Your task to perform on an android device: Play the last video I watched on Youtube Image 0: 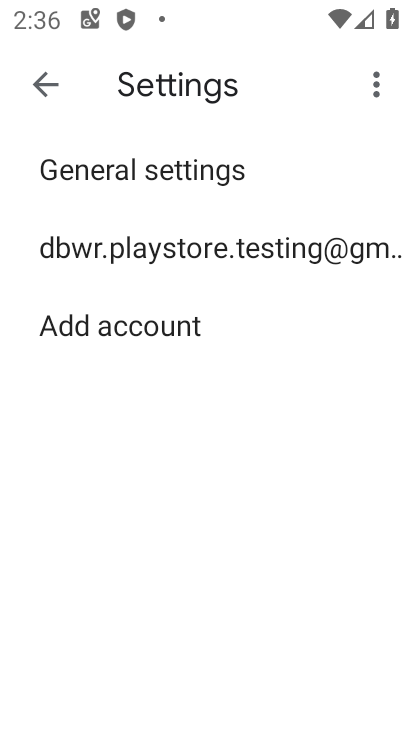
Step 0: press home button
Your task to perform on an android device: Play the last video I watched on Youtube Image 1: 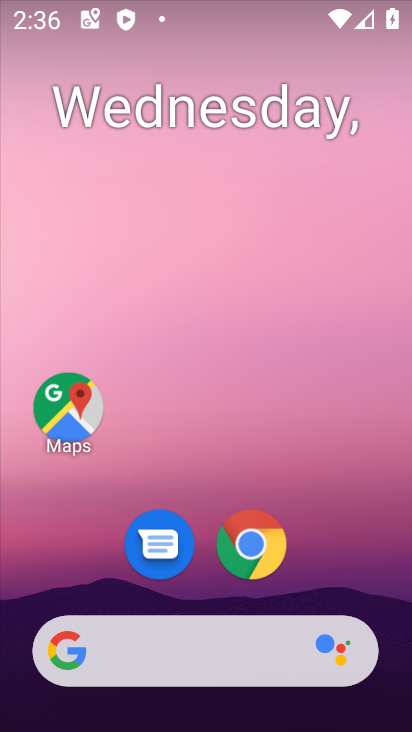
Step 1: drag from (341, 586) to (312, 129)
Your task to perform on an android device: Play the last video I watched on Youtube Image 2: 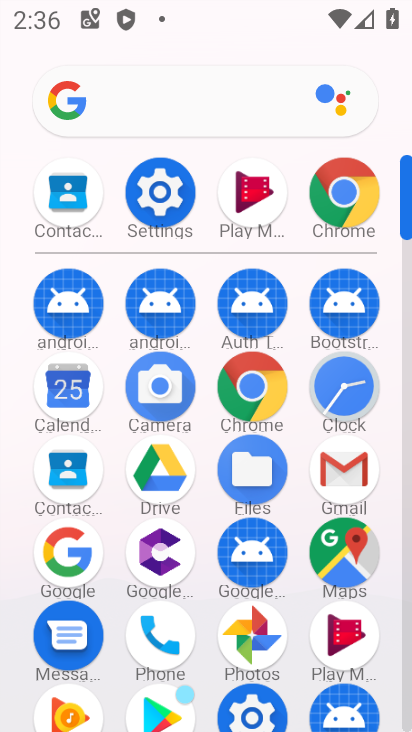
Step 2: drag from (246, 671) to (260, 273)
Your task to perform on an android device: Play the last video I watched on Youtube Image 3: 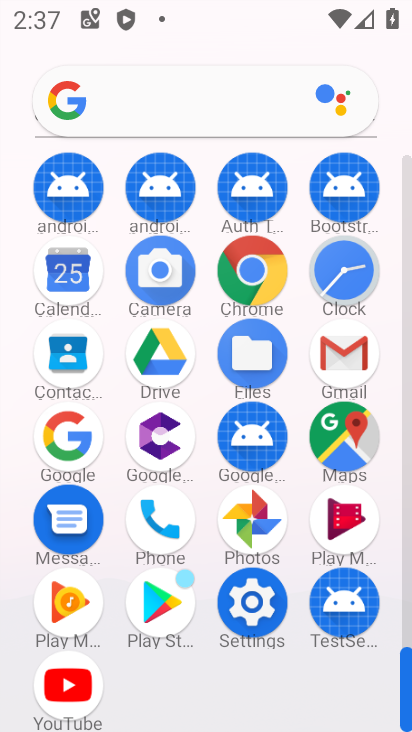
Step 3: click (55, 691)
Your task to perform on an android device: Play the last video I watched on Youtube Image 4: 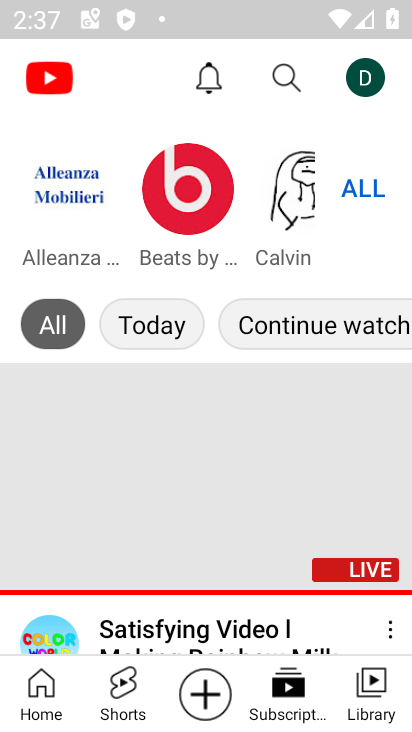
Step 4: click (370, 699)
Your task to perform on an android device: Play the last video I watched on Youtube Image 5: 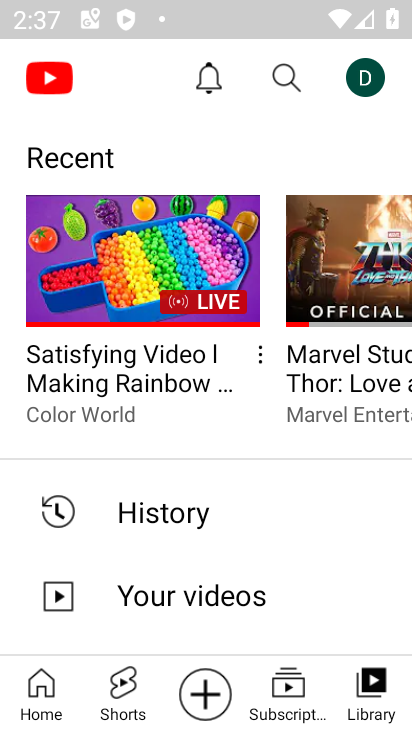
Step 5: task complete